Your task to perform on an android device: uninstall "Google Maps" Image 0: 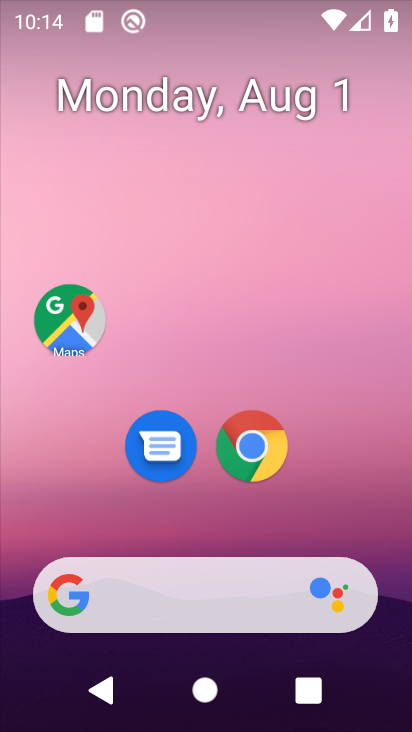
Step 0: drag from (186, 475) to (189, 92)
Your task to perform on an android device: uninstall "Google Maps" Image 1: 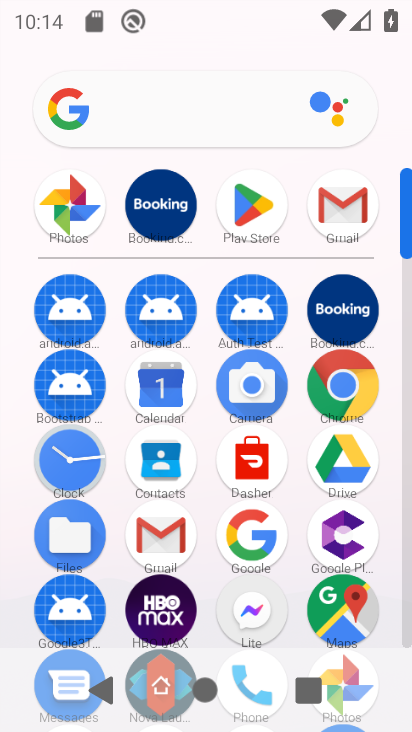
Step 1: click (246, 177)
Your task to perform on an android device: uninstall "Google Maps" Image 2: 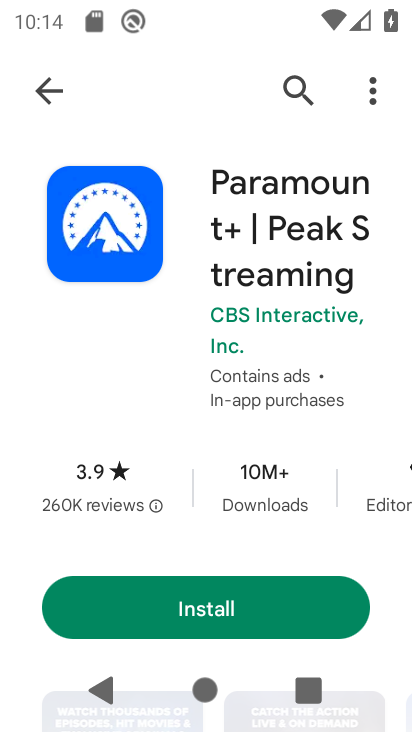
Step 2: click (281, 85)
Your task to perform on an android device: uninstall "Google Maps" Image 3: 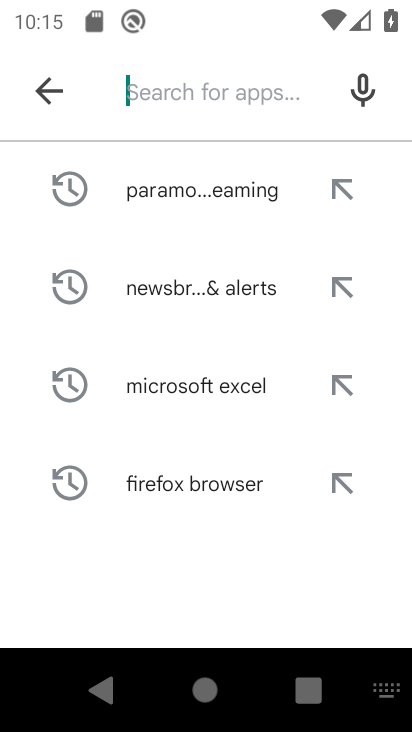
Step 3: type "Google Maps"
Your task to perform on an android device: uninstall "Google Maps" Image 4: 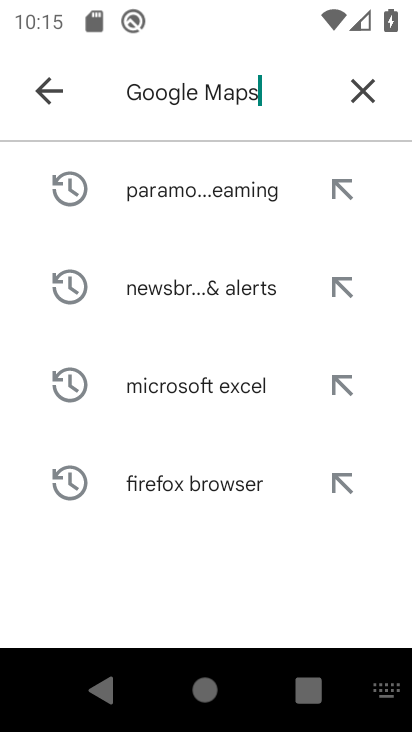
Step 4: type ""
Your task to perform on an android device: uninstall "Google Maps" Image 5: 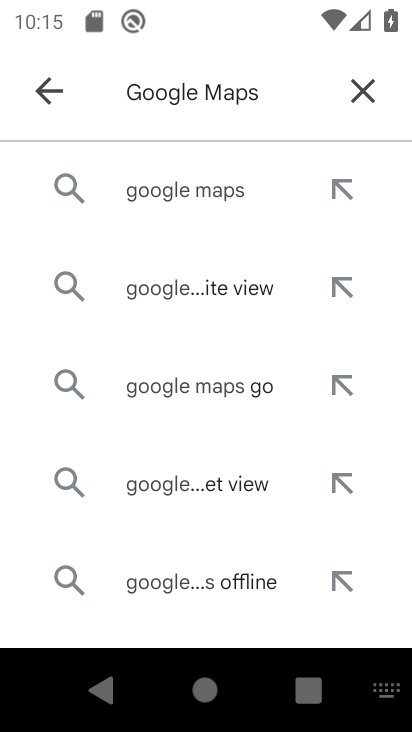
Step 5: click (169, 170)
Your task to perform on an android device: uninstall "Google Maps" Image 6: 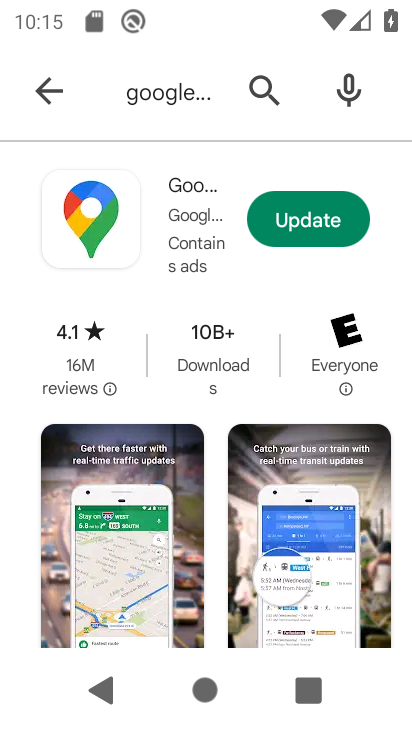
Step 6: click (293, 229)
Your task to perform on an android device: uninstall "Google Maps" Image 7: 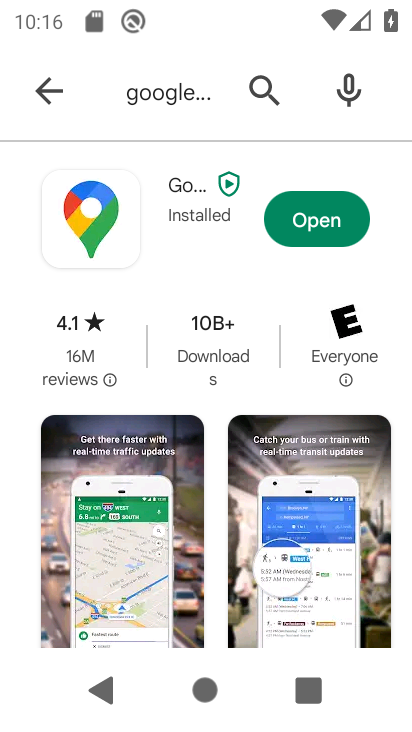
Step 7: click (175, 203)
Your task to perform on an android device: uninstall "Google Maps" Image 8: 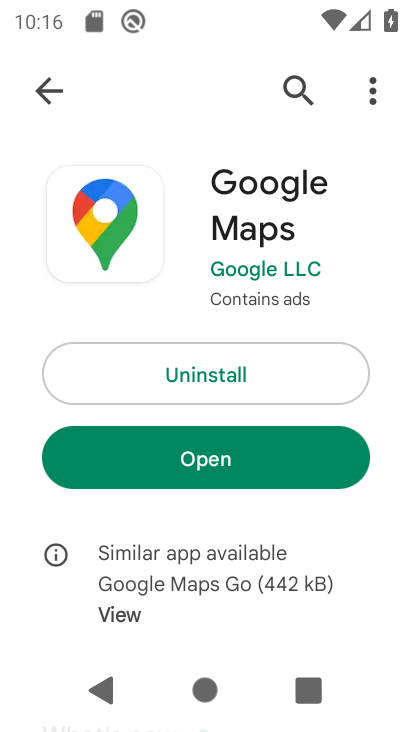
Step 8: click (174, 359)
Your task to perform on an android device: uninstall "Google Maps" Image 9: 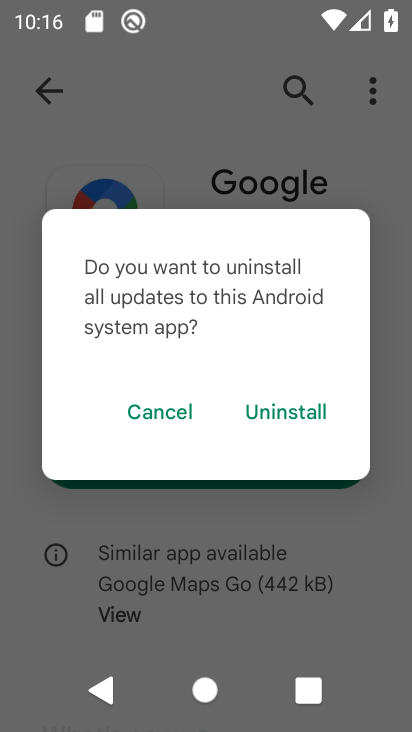
Step 9: click (265, 398)
Your task to perform on an android device: uninstall "Google Maps" Image 10: 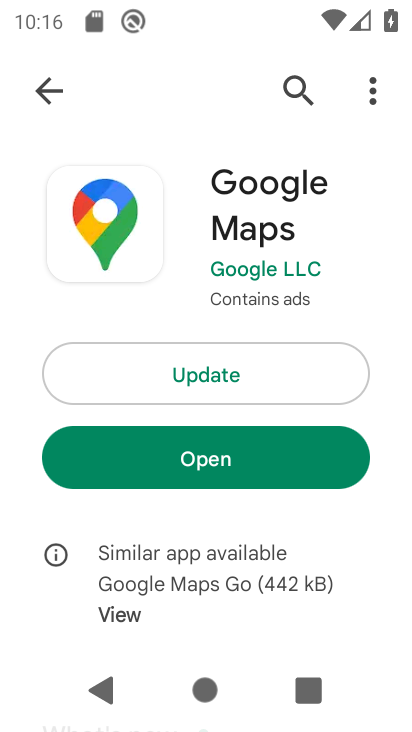
Step 10: task complete